Your task to perform on an android device: See recent photos Image 0: 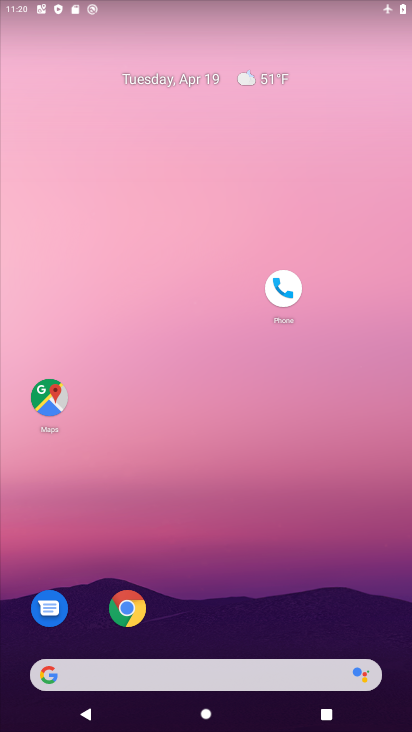
Step 0: drag from (176, 453) to (196, 87)
Your task to perform on an android device: See recent photos Image 1: 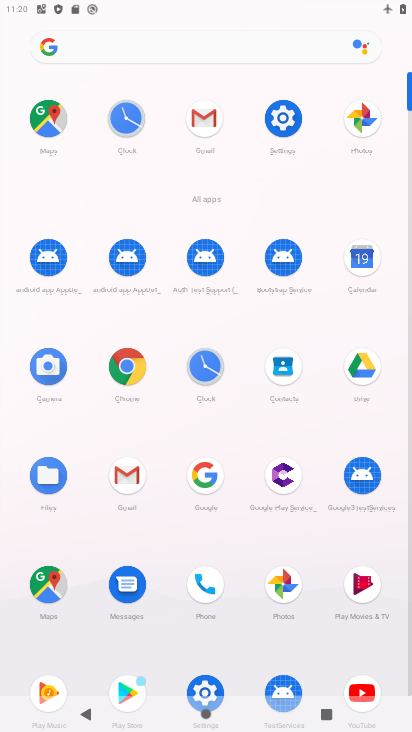
Step 1: click (281, 589)
Your task to perform on an android device: See recent photos Image 2: 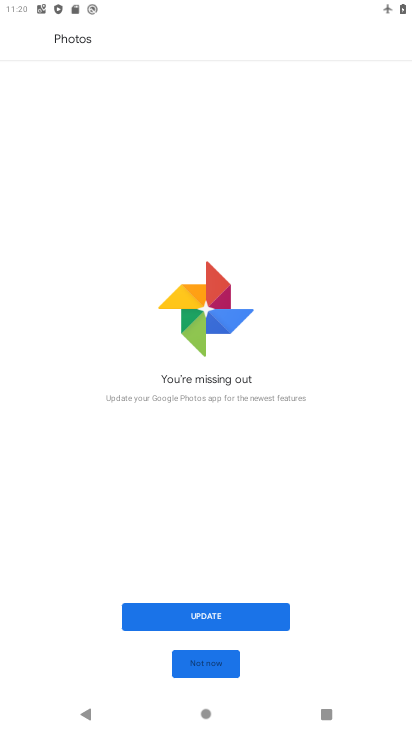
Step 2: click (211, 625)
Your task to perform on an android device: See recent photos Image 3: 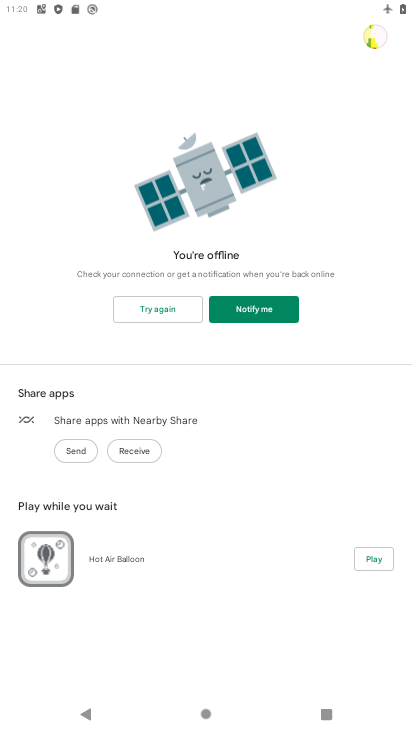
Step 3: task complete